Your task to perform on an android device: change the clock style Image 0: 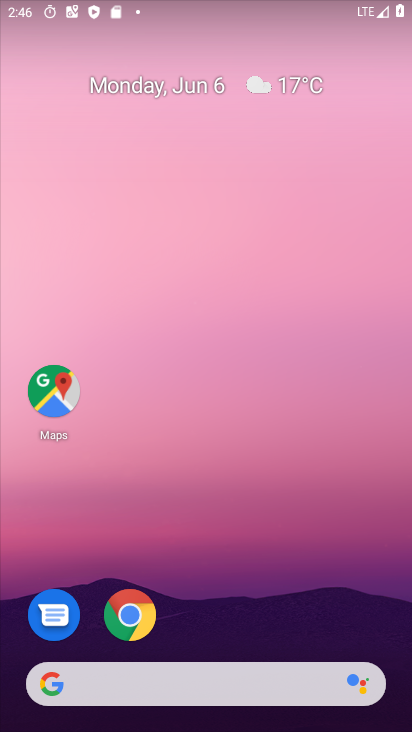
Step 0: drag from (197, 554) to (197, 171)
Your task to perform on an android device: change the clock style Image 1: 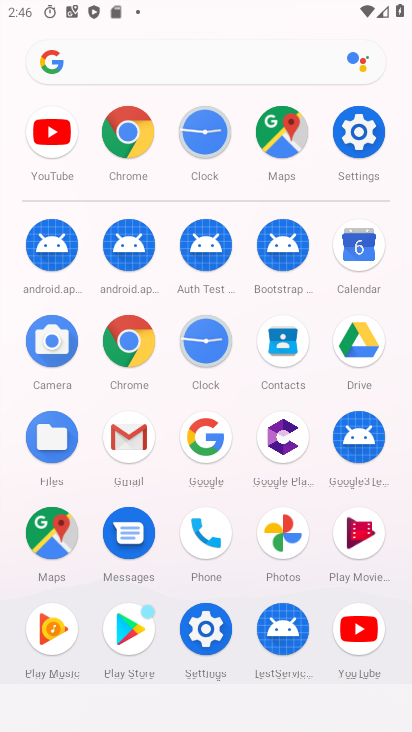
Step 1: click (205, 339)
Your task to perform on an android device: change the clock style Image 2: 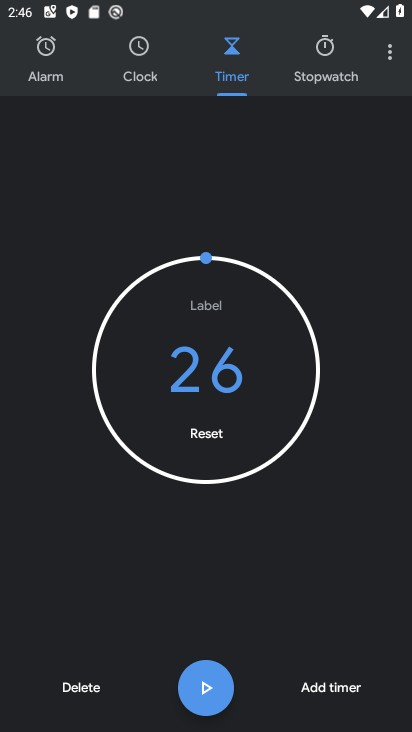
Step 2: click (390, 47)
Your task to perform on an android device: change the clock style Image 3: 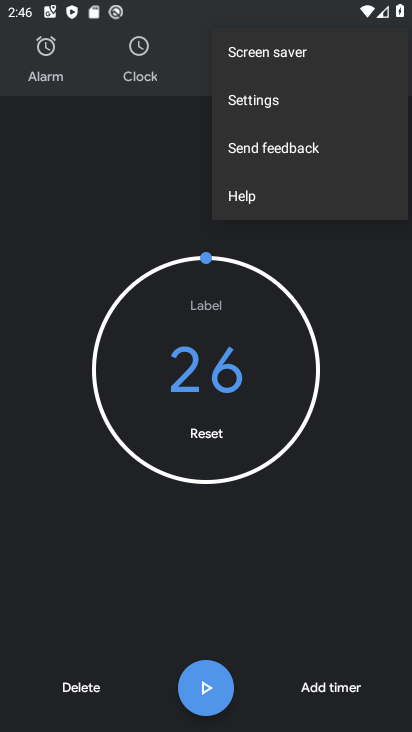
Step 3: click (265, 105)
Your task to perform on an android device: change the clock style Image 4: 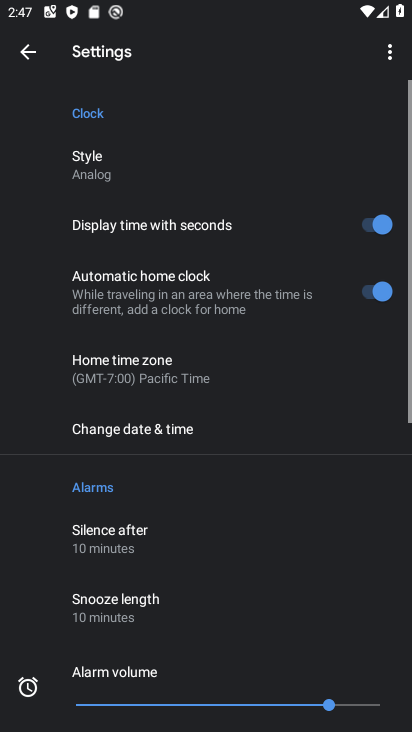
Step 4: drag from (258, 494) to (213, 59)
Your task to perform on an android device: change the clock style Image 5: 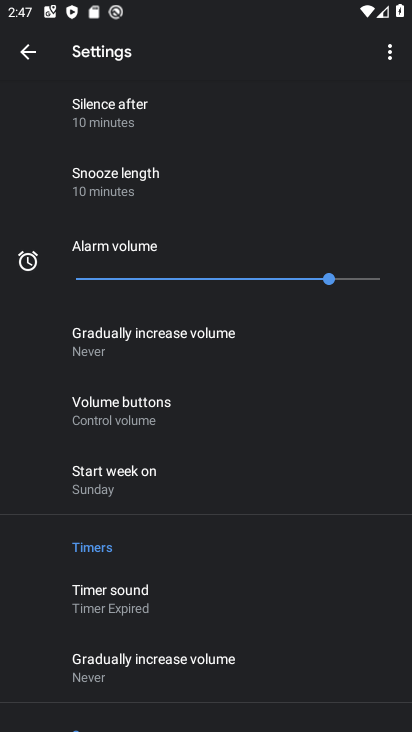
Step 5: drag from (239, 513) to (239, 168)
Your task to perform on an android device: change the clock style Image 6: 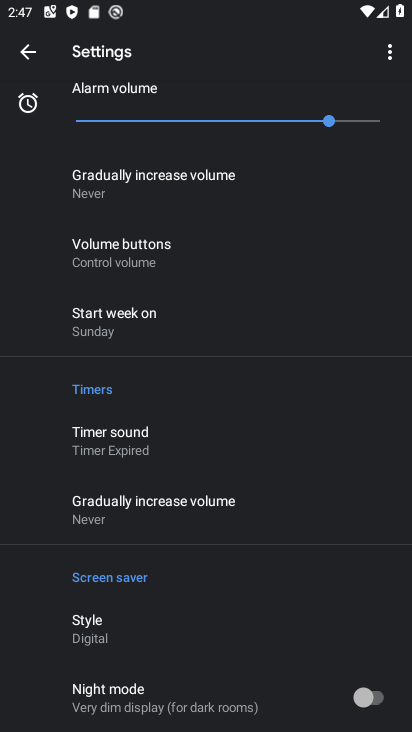
Step 6: drag from (177, 565) to (225, 400)
Your task to perform on an android device: change the clock style Image 7: 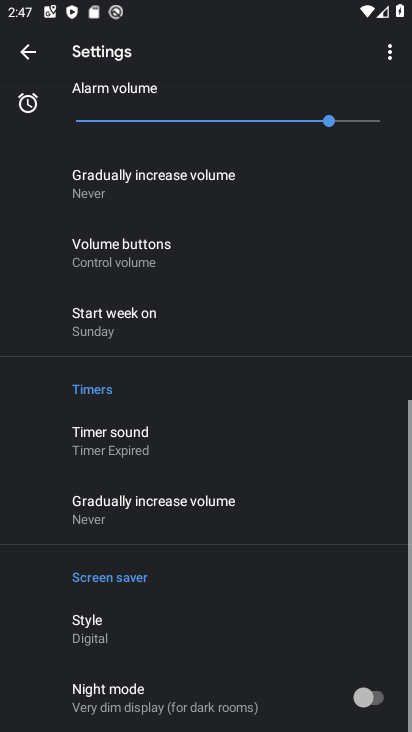
Step 7: drag from (195, 295) to (253, 721)
Your task to perform on an android device: change the clock style Image 8: 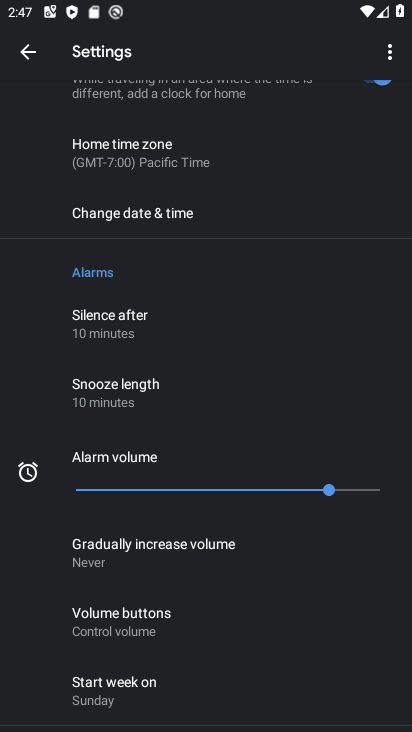
Step 8: drag from (190, 316) to (294, 729)
Your task to perform on an android device: change the clock style Image 9: 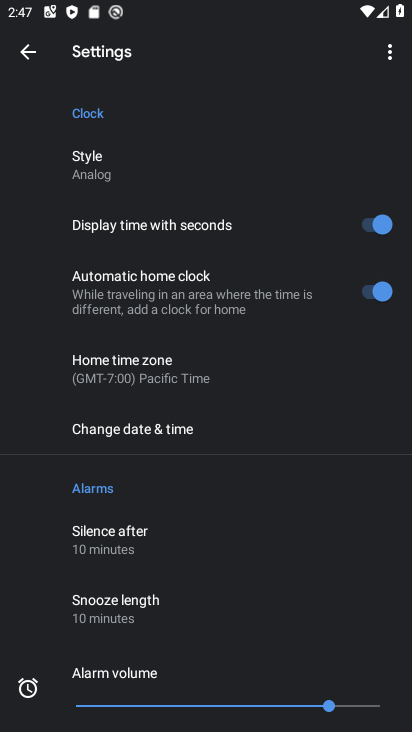
Step 9: drag from (267, 581) to (282, 148)
Your task to perform on an android device: change the clock style Image 10: 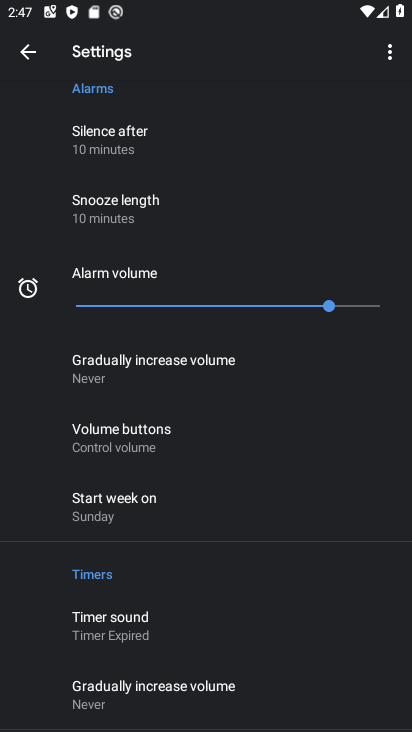
Step 10: drag from (229, 604) to (259, 187)
Your task to perform on an android device: change the clock style Image 11: 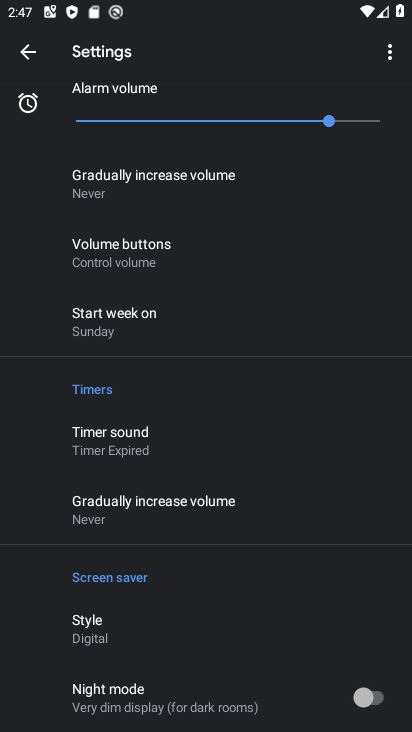
Step 11: drag from (187, 299) to (227, 648)
Your task to perform on an android device: change the clock style Image 12: 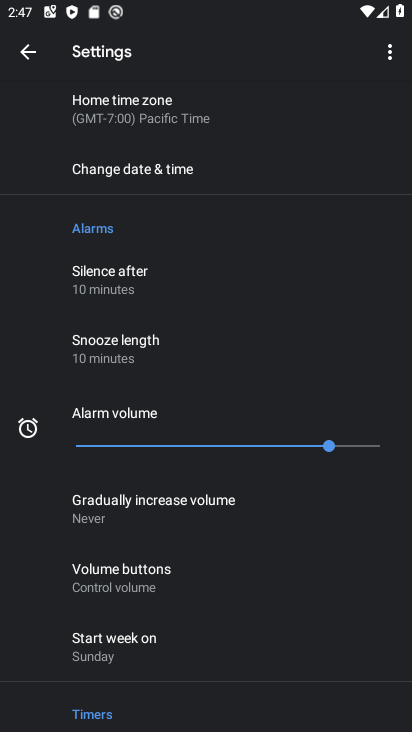
Step 12: drag from (197, 377) to (294, 723)
Your task to perform on an android device: change the clock style Image 13: 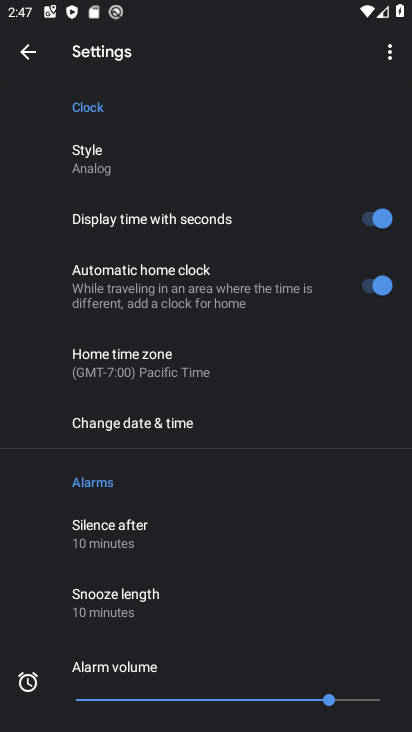
Step 13: click (126, 164)
Your task to perform on an android device: change the clock style Image 14: 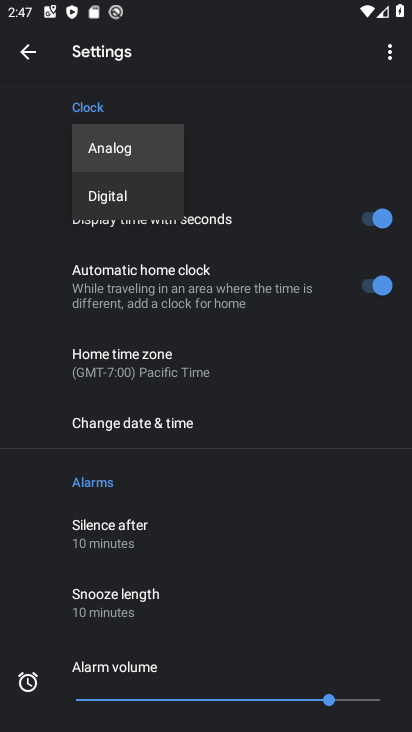
Step 14: click (150, 195)
Your task to perform on an android device: change the clock style Image 15: 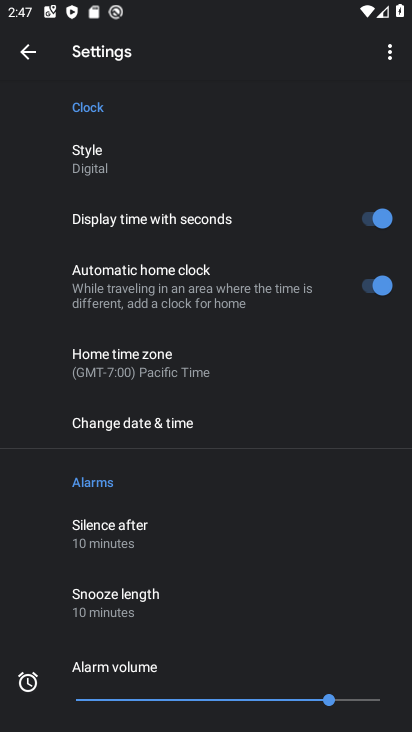
Step 15: task complete